Your task to perform on an android device: add a contact Image 0: 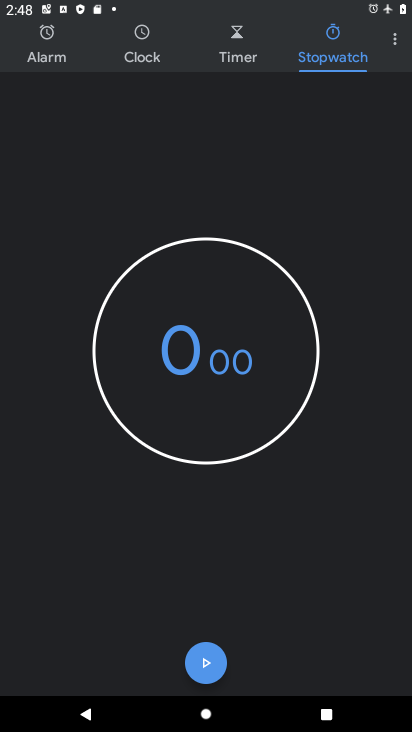
Step 0: press home button
Your task to perform on an android device: add a contact Image 1: 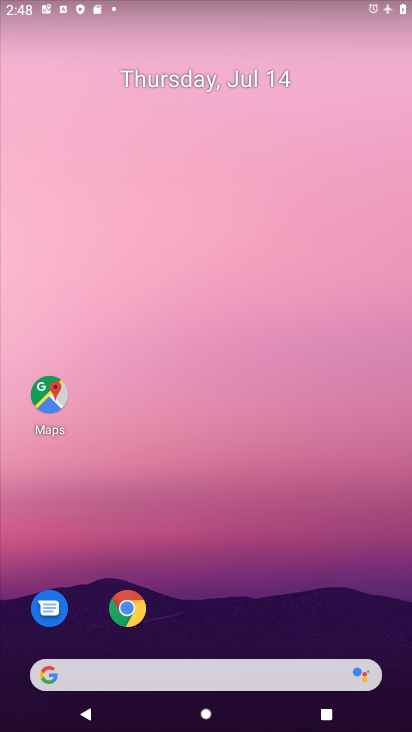
Step 1: drag from (373, 621) to (321, 100)
Your task to perform on an android device: add a contact Image 2: 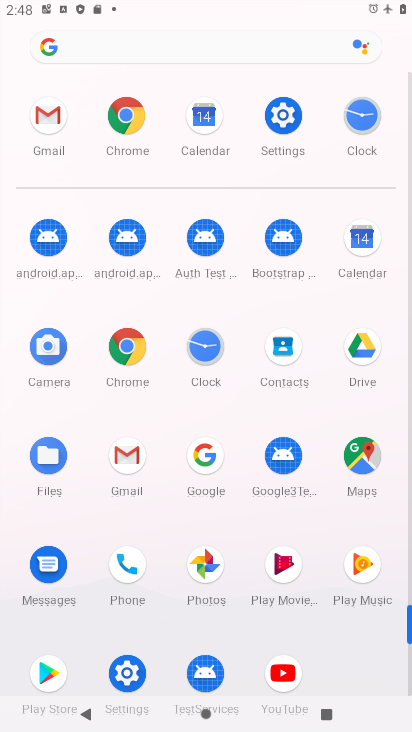
Step 2: click (280, 350)
Your task to perform on an android device: add a contact Image 3: 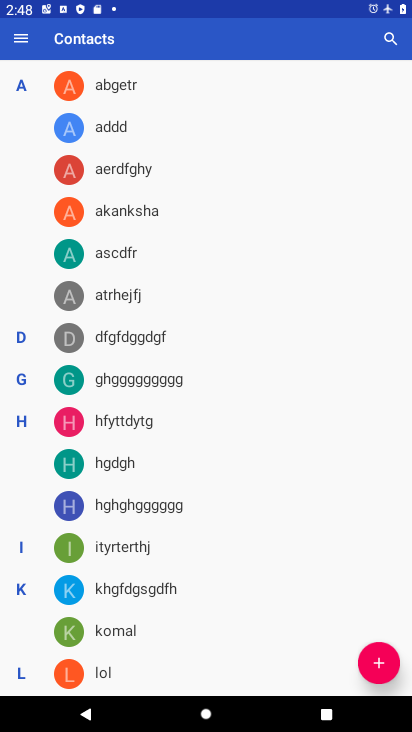
Step 3: click (376, 663)
Your task to perform on an android device: add a contact Image 4: 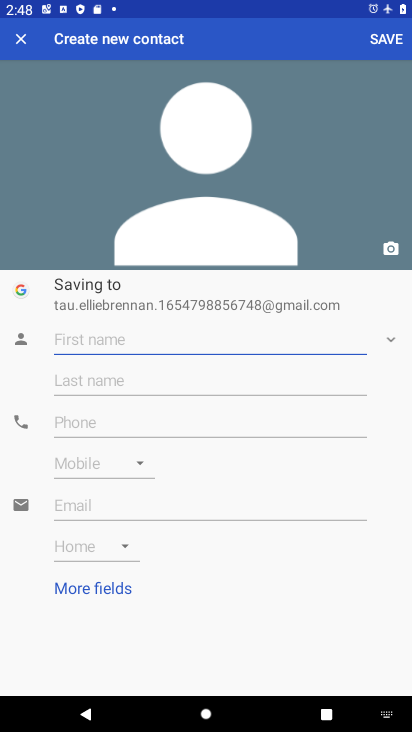
Step 4: type "mhjhgbn"
Your task to perform on an android device: add a contact Image 5: 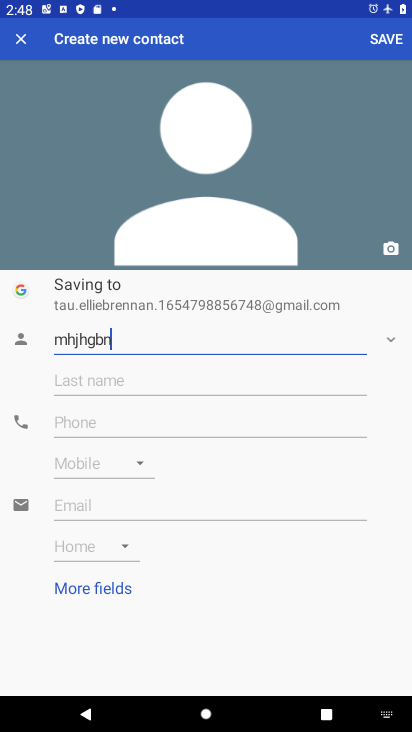
Step 5: click (84, 424)
Your task to perform on an android device: add a contact Image 6: 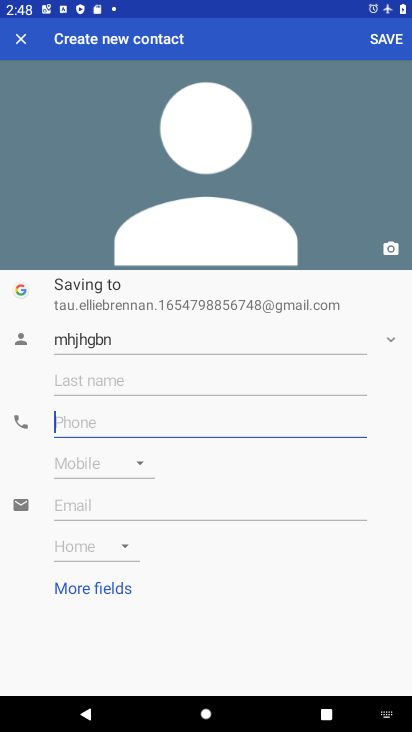
Step 6: type "0987654456"
Your task to perform on an android device: add a contact Image 7: 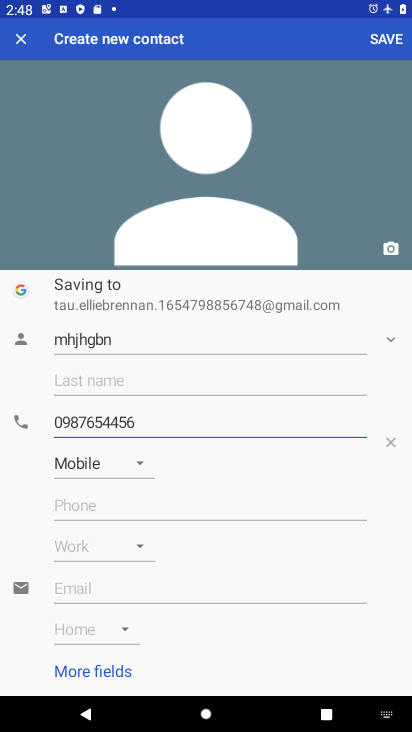
Step 7: click (384, 33)
Your task to perform on an android device: add a contact Image 8: 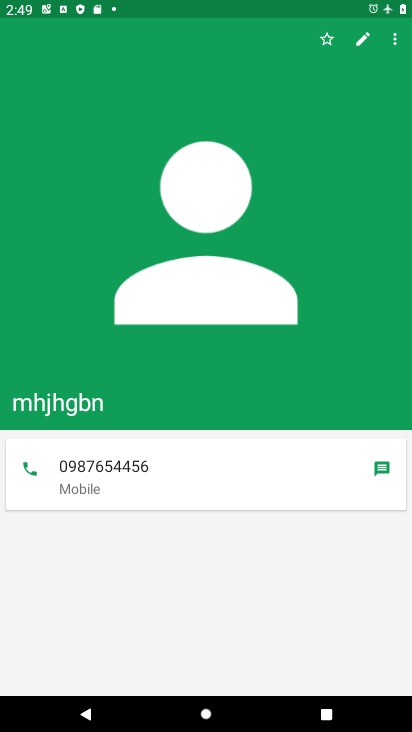
Step 8: task complete